Your task to perform on an android device: Go to ESPN.com Image 0: 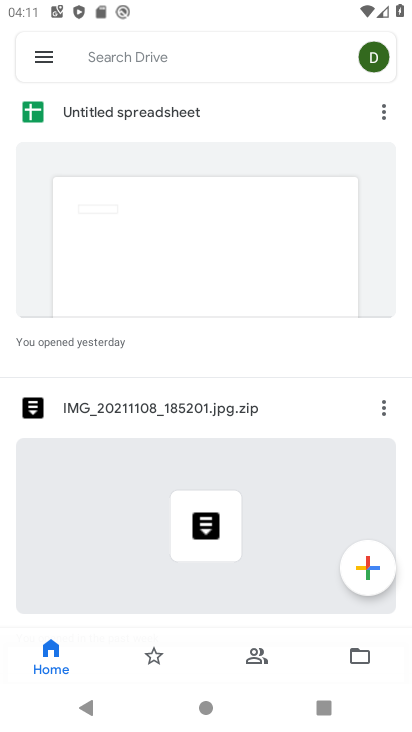
Step 0: press home button
Your task to perform on an android device: Go to ESPN.com Image 1: 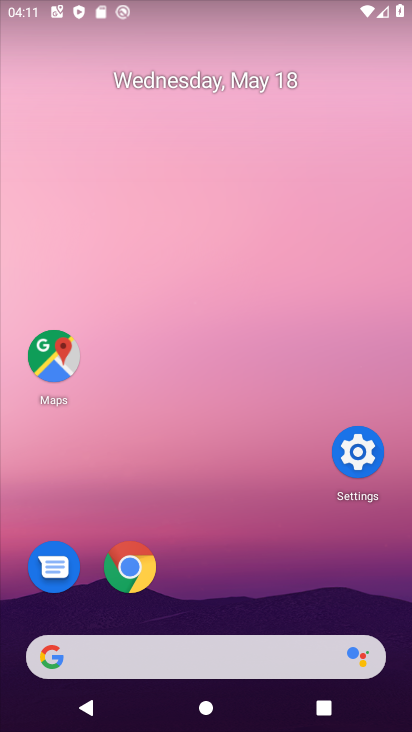
Step 1: click (133, 569)
Your task to perform on an android device: Go to ESPN.com Image 2: 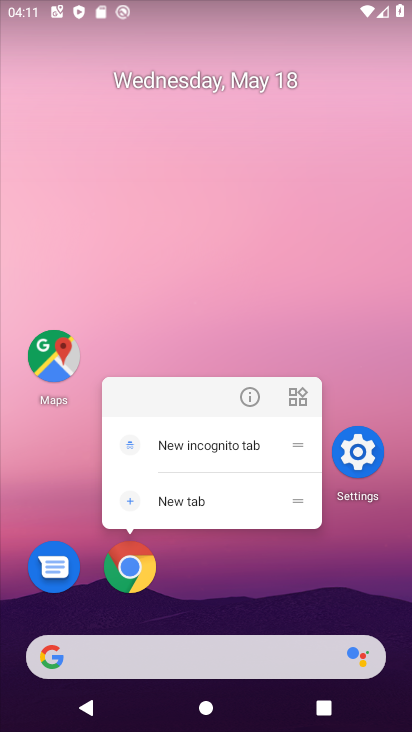
Step 2: click (127, 569)
Your task to perform on an android device: Go to ESPN.com Image 3: 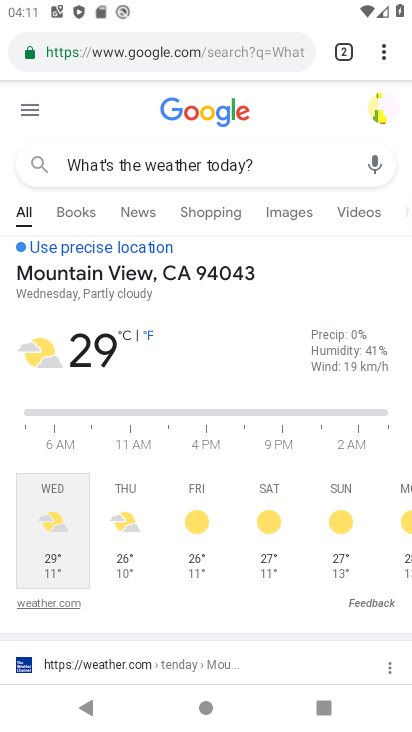
Step 3: click (275, 53)
Your task to perform on an android device: Go to ESPN.com Image 4: 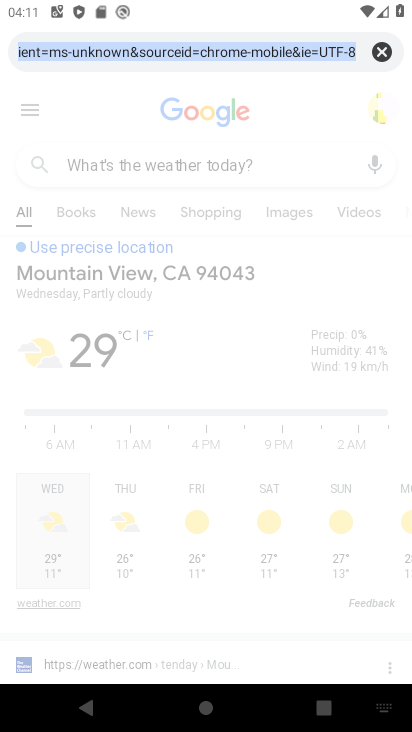
Step 4: click (378, 47)
Your task to perform on an android device: Go to ESPN.com Image 5: 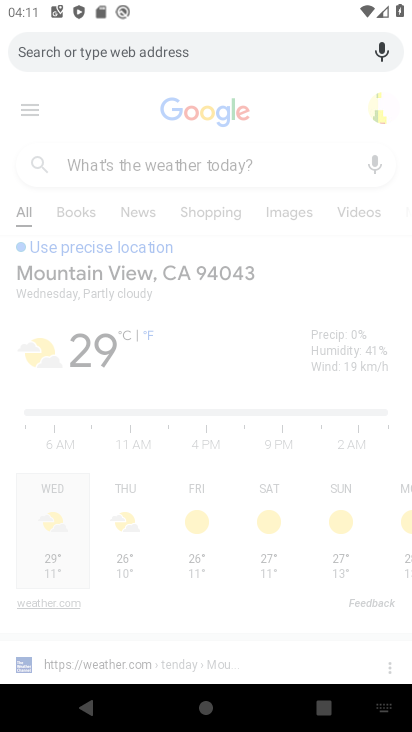
Step 5: type " ESPN.com"
Your task to perform on an android device: Go to ESPN.com Image 6: 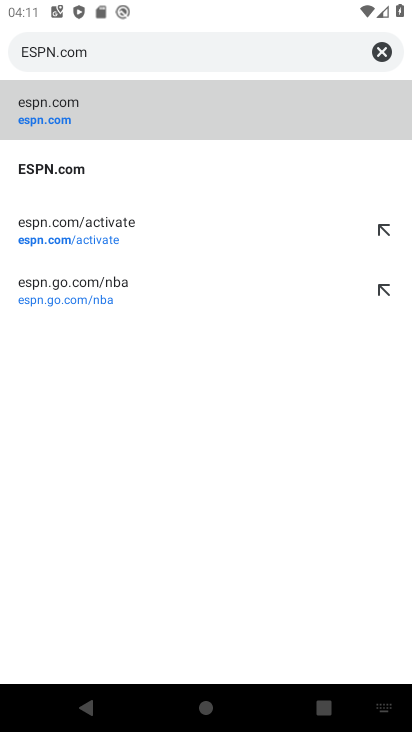
Step 6: click (33, 115)
Your task to perform on an android device: Go to ESPN.com Image 7: 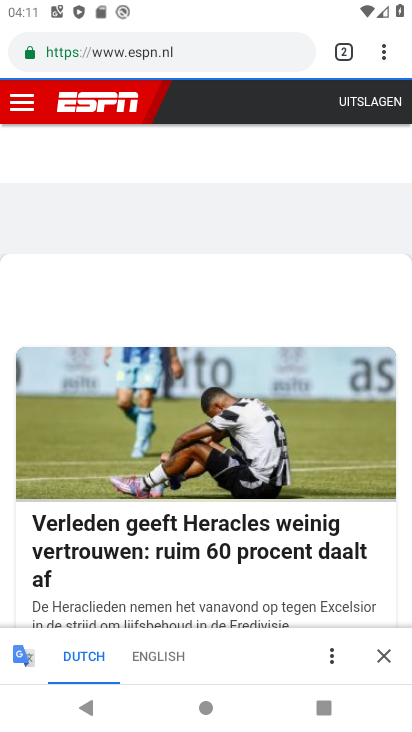
Step 7: task complete